Your task to perform on an android device: Open accessibility settings Image 0: 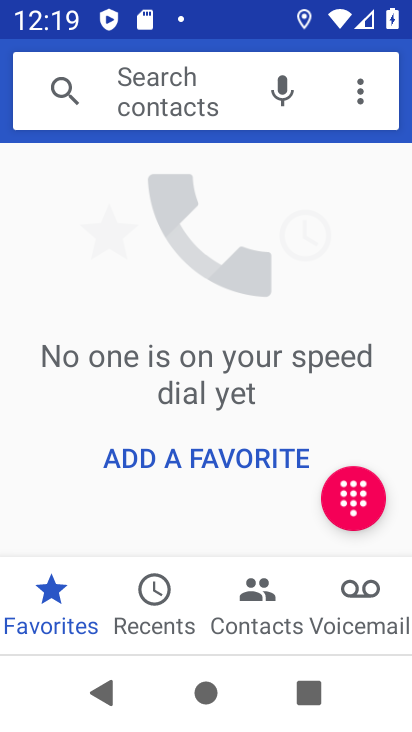
Step 0: press home button
Your task to perform on an android device: Open accessibility settings Image 1: 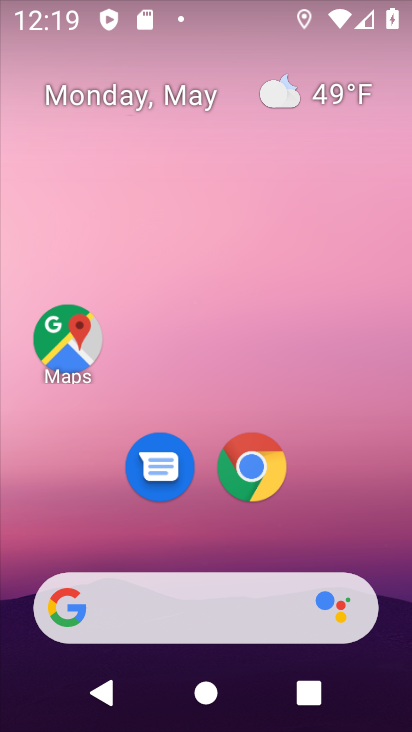
Step 1: drag from (301, 525) to (302, 184)
Your task to perform on an android device: Open accessibility settings Image 2: 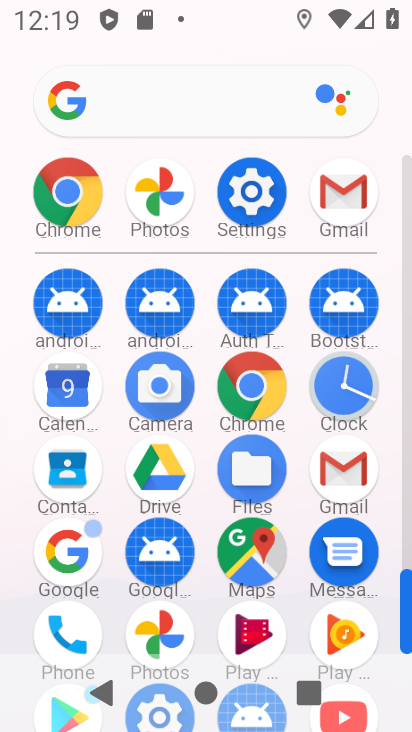
Step 2: click (241, 199)
Your task to perform on an android device: Open accessibility settings Image 3: 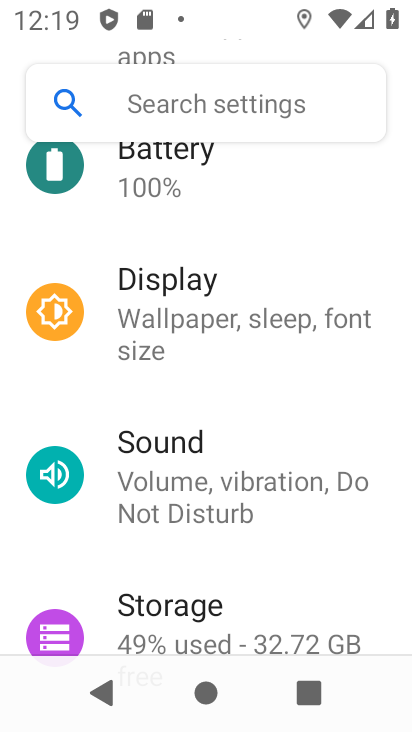
Step 3: drag from (312, 552) to (303, 276)
Your task to perform on an android device: Open accessibility settings Image 4: 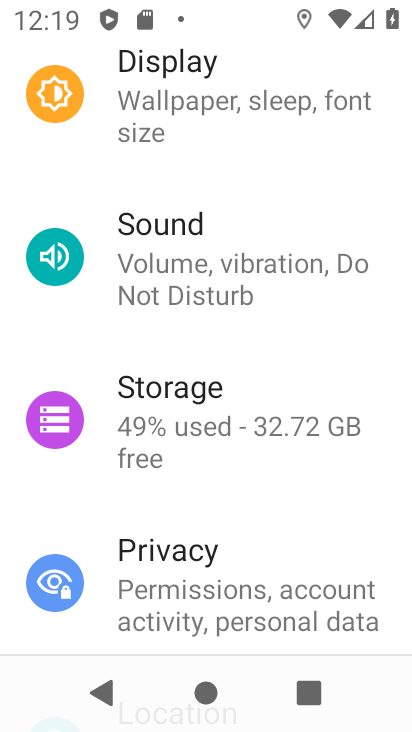
Step 4: drag from (262, 538) to (306, 194)
Your task to perform on an android device: Open accessibility settings Image 5: 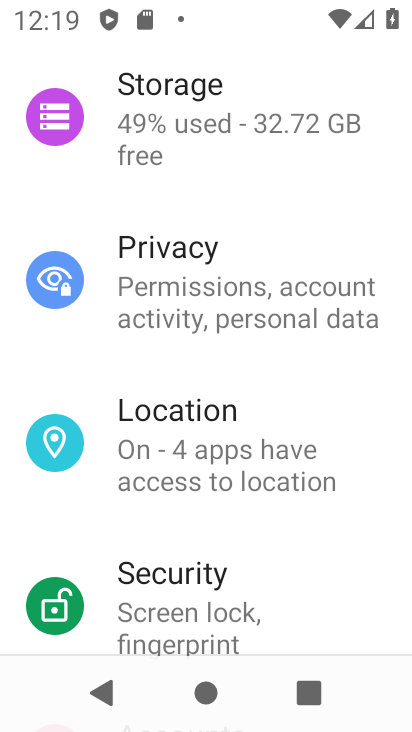
Step 5: drag from (305, 551) to (318, 149)
Your task to perform on an android device: Open accessibility settings Image 6: 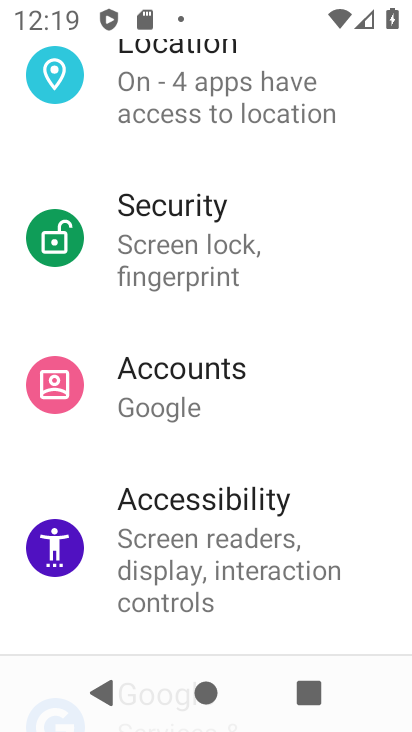
Step 6: click (221, 559)
Your task to perform on an android device: Open accessibility settings Image 7: 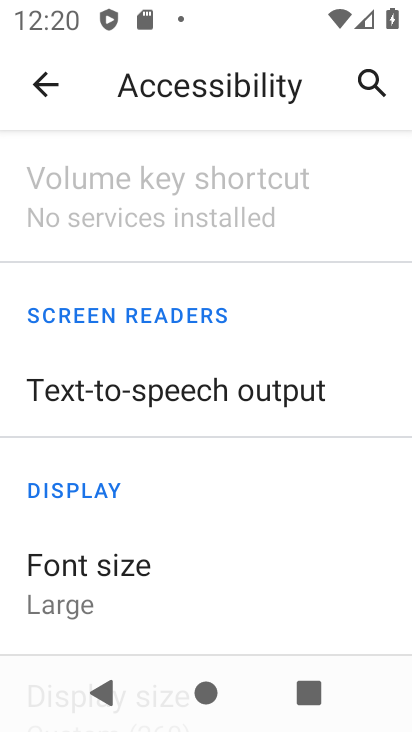
Step 7: task complete